Your task to perform on an android device: Go to Google maps Image 0: 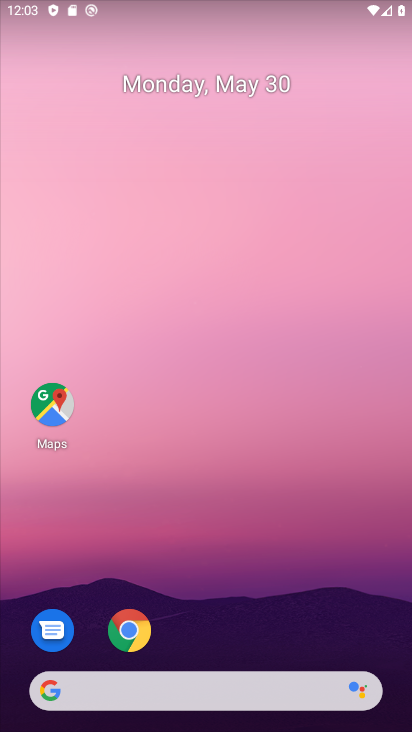
Step 0: click (47, 404)
Your task to perform on an android device: Go to Google maps Image 1: 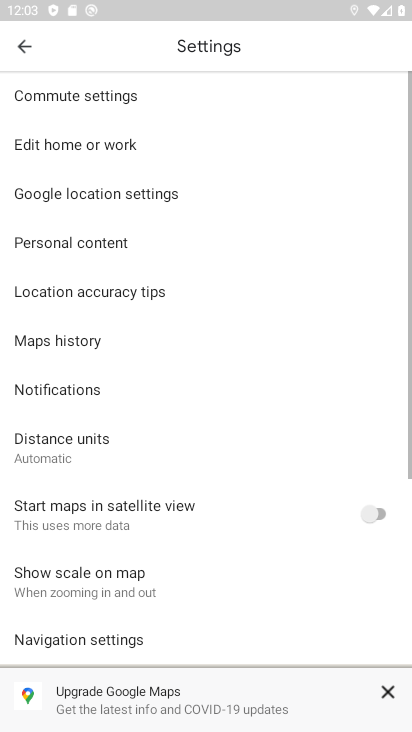
Step 1: click (24, 44)
Your task to perform on an android device: Go to Google maps Image 2: 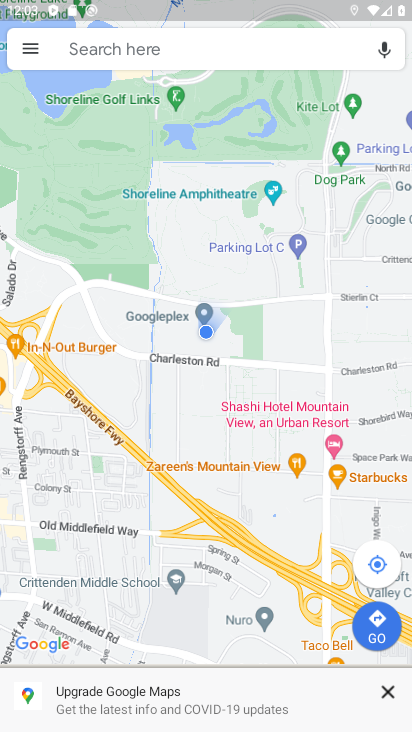
Step 2: click (389, 698)
Your task to perform on an android device: Go to Google maps Image 3: 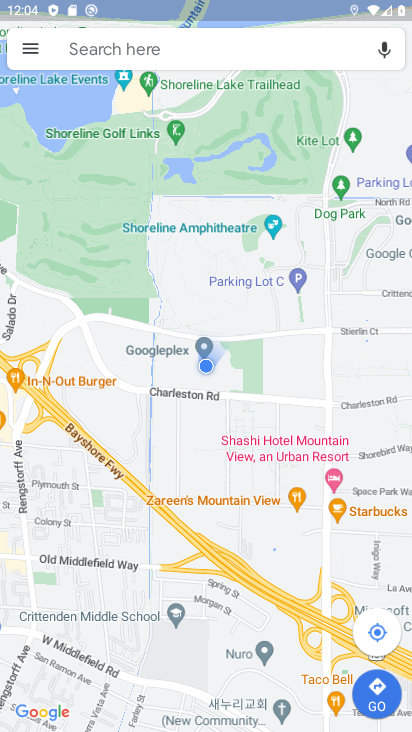
Step 3: task complete